Your task to perform on an android device: toggle location history Image 0: 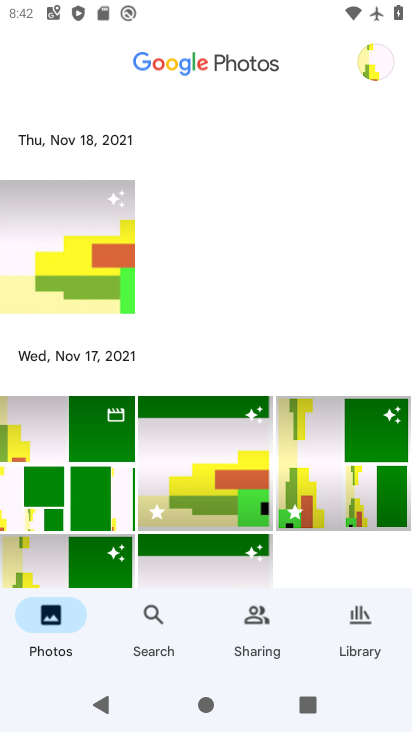
Step 0: press home button
Your task to perform on an android device: toggle location history Image 1: 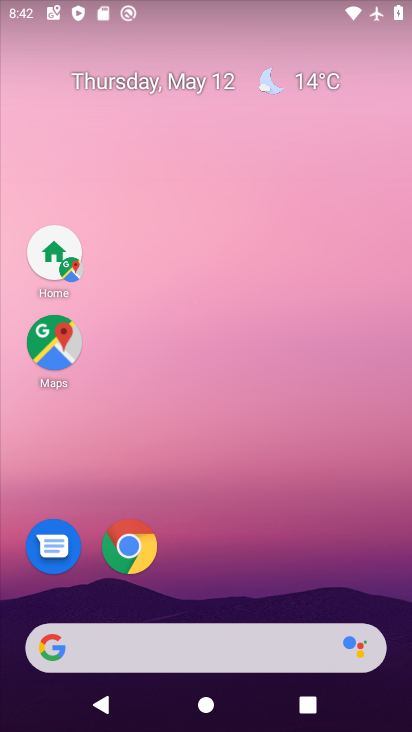
Step 1: drag from (213, 660) to (385, 117)
Your task to perform on an android device: toggle location history Image 2: 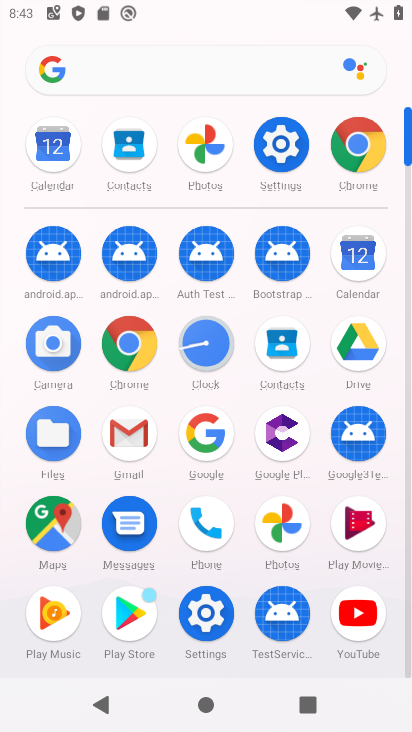
Step 2: click (50, 542)
Your task to perform on an android device: toggle location history Image 3: 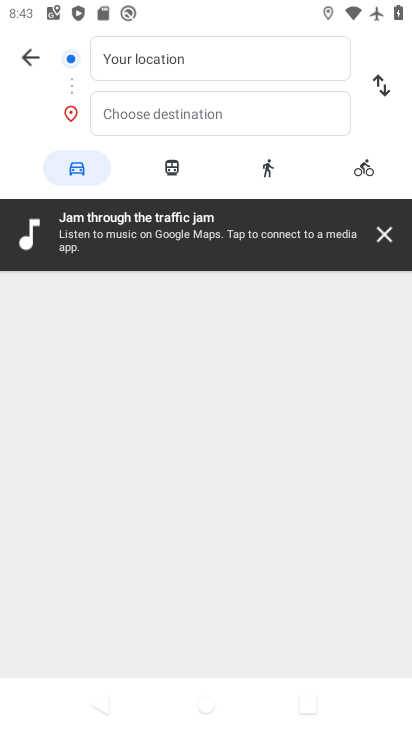
Step 3: click (31, 52)
Your task to perform on an android device: toggle location history Image 4: 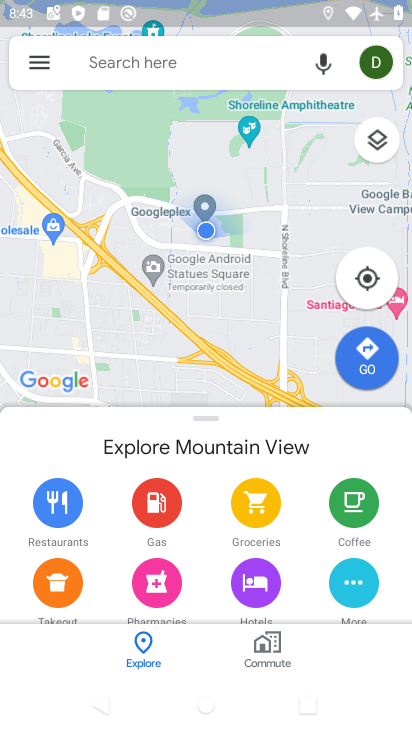
Step 4: drag from (43, 68) to (70, 46)
Your task to perform on an android device: toggle location history Image 5: 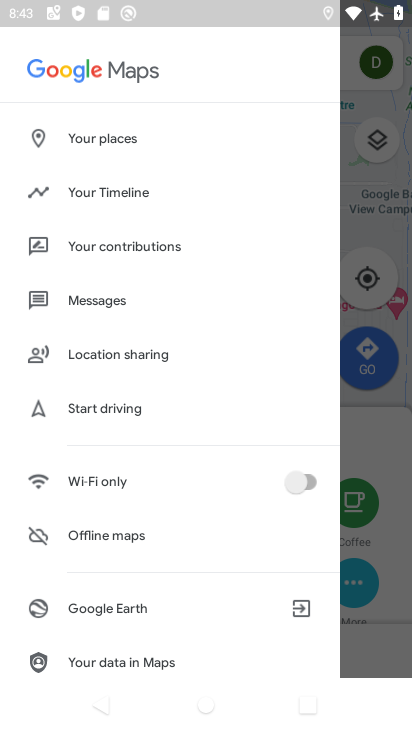
Step 5: click (124, 192)
Your task to perform on an android device: toggle location history Image 6: 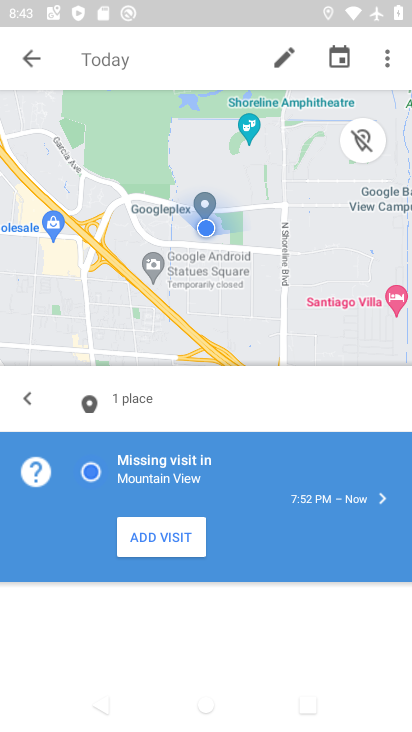
Step 6: click (399, 61)
Your task to perform on an android device: toggle location history Image 7: 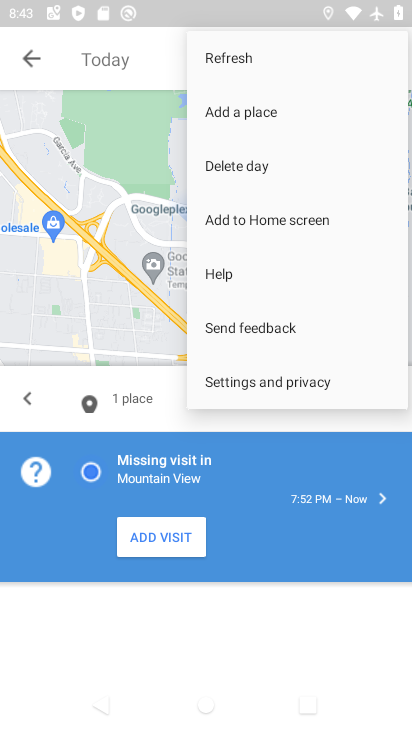
Step 7: click (265, 382)
Your task to perform on an android device: toggle location history Image 8: 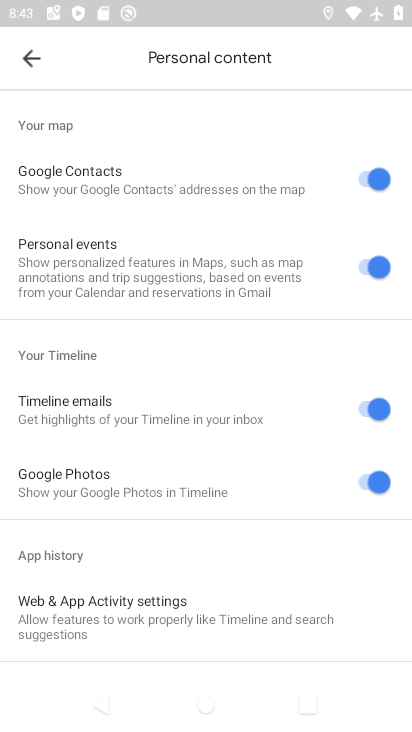
Step 8: drag from (208, 570) to (358, 23)
Your task to perform on an android device: toggle location history Image 9: 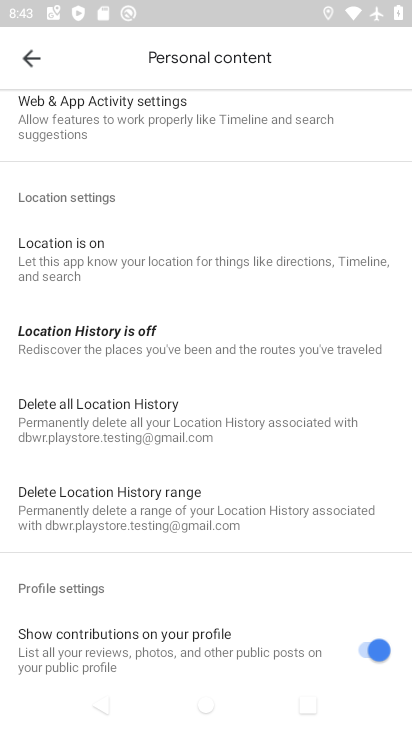
Step 9: click (121, 349)
Your task to perform on an android device: toggle location history Image 10: 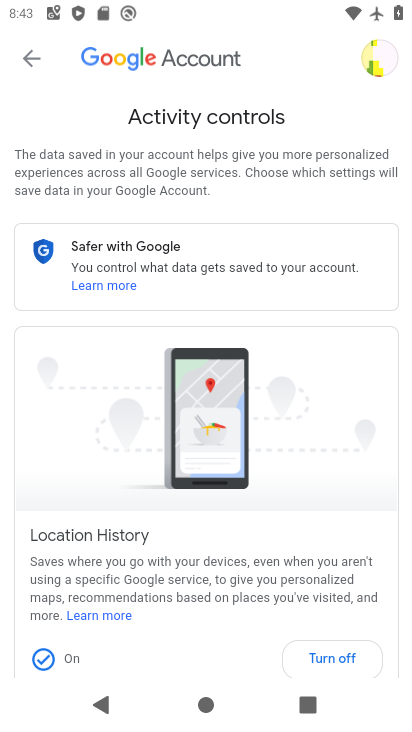
Step 10: drag from (223, 585) to (411, 220)
Your task to perform on an android device: toggle location history Image 11: 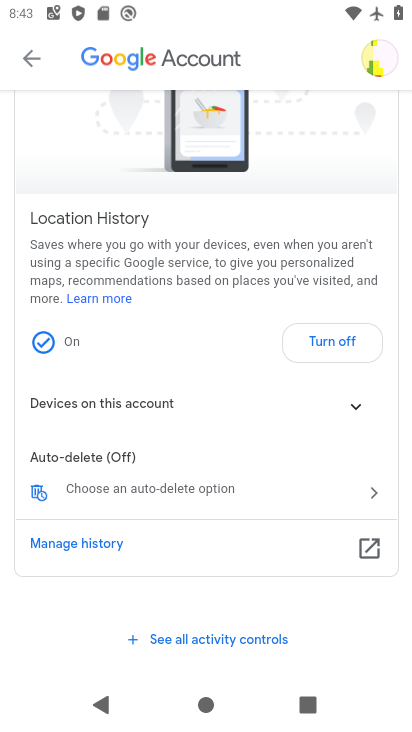
Step 11: click (344, 344)
Your task to perform on an android device: toggle location history Image 12: 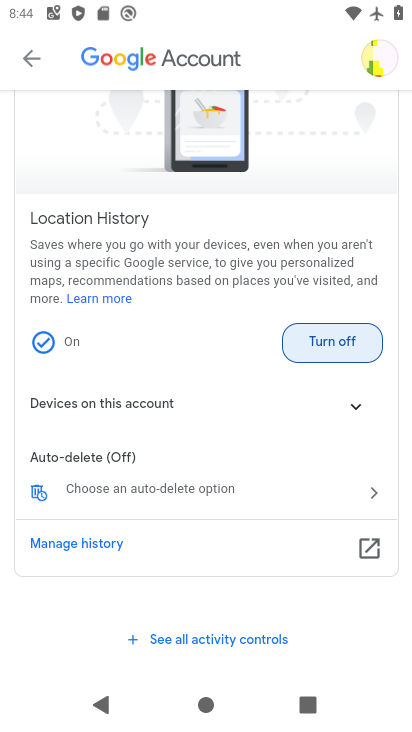
Step 12: click (344, 340)
Your task to perform on an android device: toggle location history Image 13: 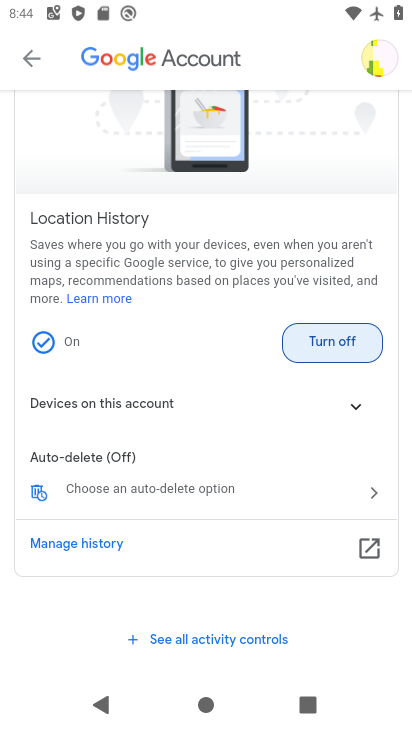
Step 13: click (334, 347)
Your task to perform on an android device: toggle location history Image 14: 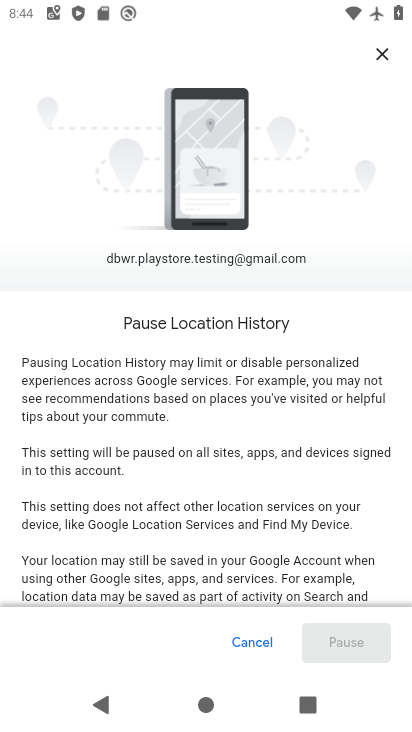
Step 14: drag from (292, 526) to (409, 82)
Your task to perform on an android device: toggle location history Image 15: 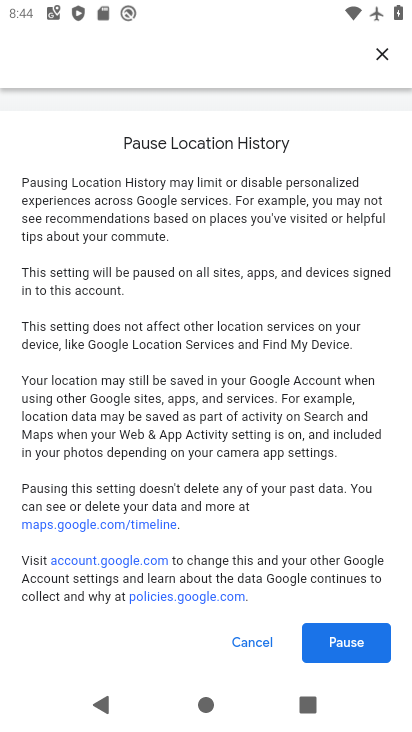
Step 15: click (344, 640)
Your task to perform on an android device: toggle location history Image 16: 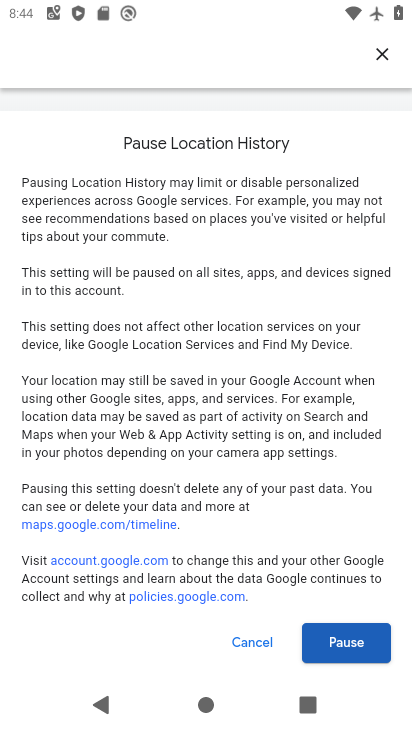
Step 16: click (346, 646)
Your task to perform on an android device: toggle location history Image 17: 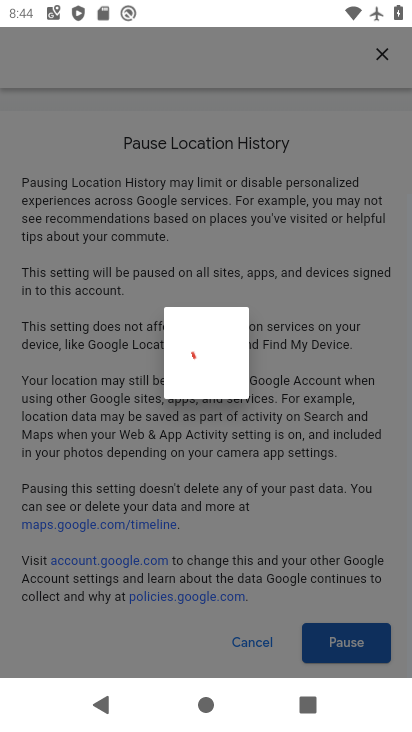
Step 17: click (349, 643)
Your task to perform on an android device: toggle location history Image 18: 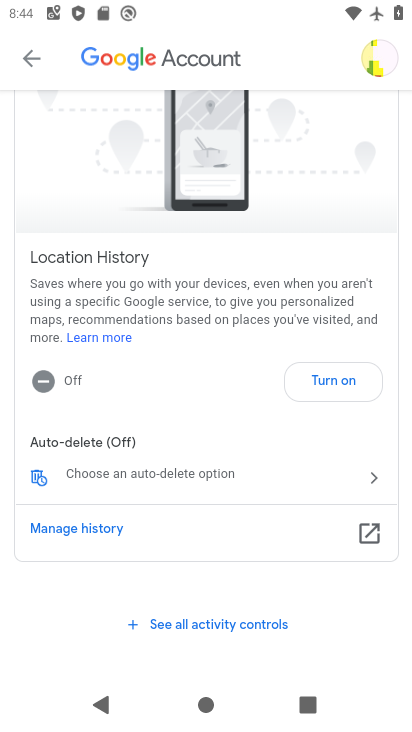
Step 18: task complete